Your task to perform on an android device: check out phone information Image 0: 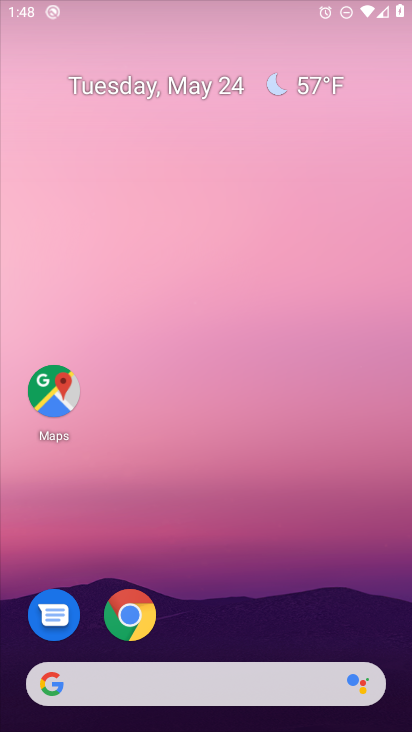
Step 0: press home button
Your task to perform on an android device: check out phone information Image 1: 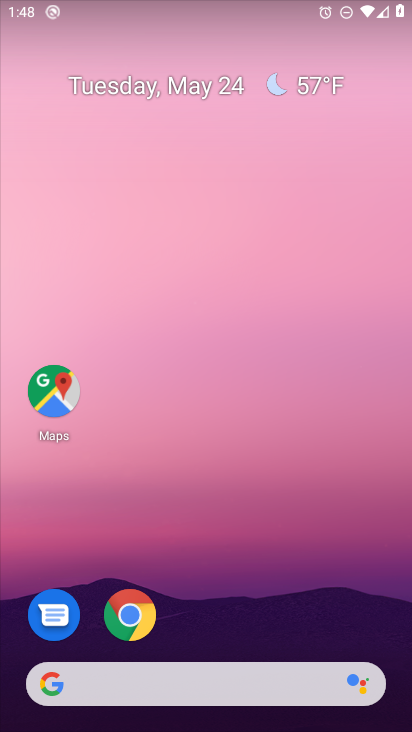
Step 1: drag from (165, 651) to (220, 179)
Your task to perform on an android device: check out phone information Image 2: 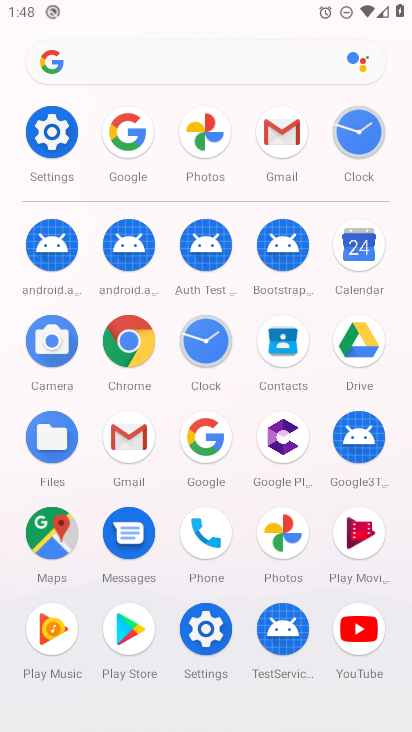
Step 2: click (192, 535)
Your task to perform on an android device: check out phone information Image 3: 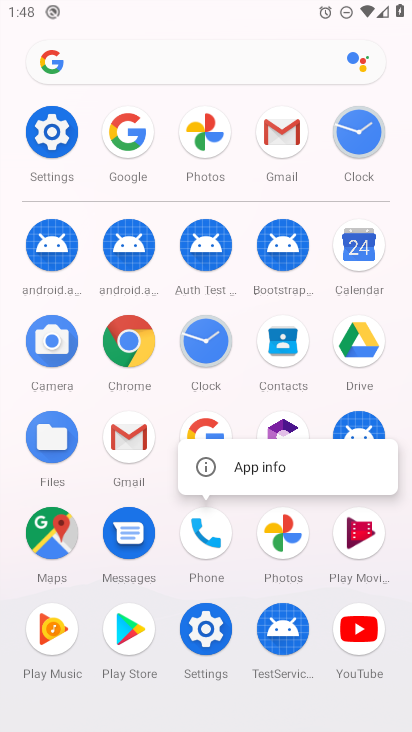
Step 3: click (212, 468)
Your task to perform on an android device: check out phone information Image 4: 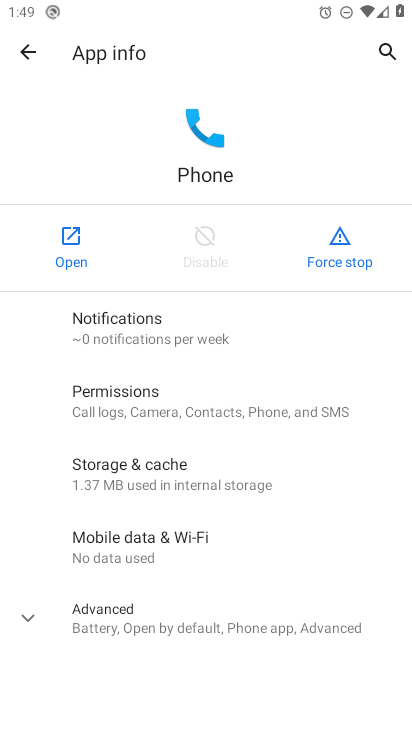
Step 4: click (81, 615)
Your task to perform on an android device: check out phone information Image 5: 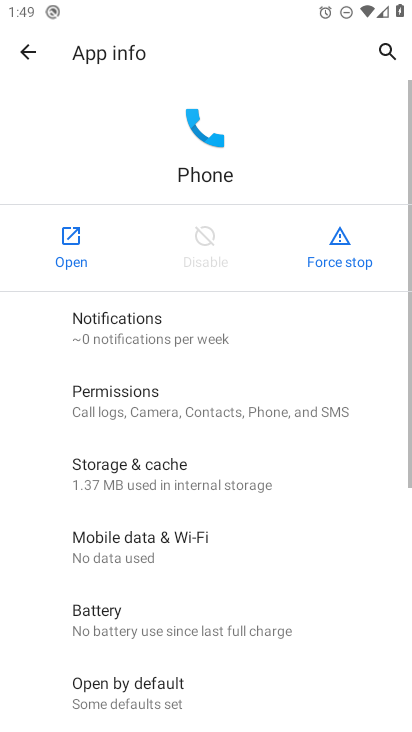
Step 5: task complete